Your task to perform on an android device: Do I have any events today? Image 0: 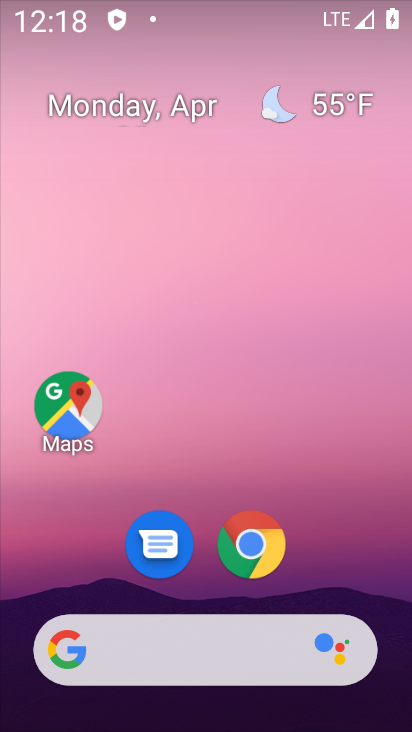
Step 0: drag from (307, 484) to (95, 150)
Your task to perform on an android device: Do I have any events today? Image 1: 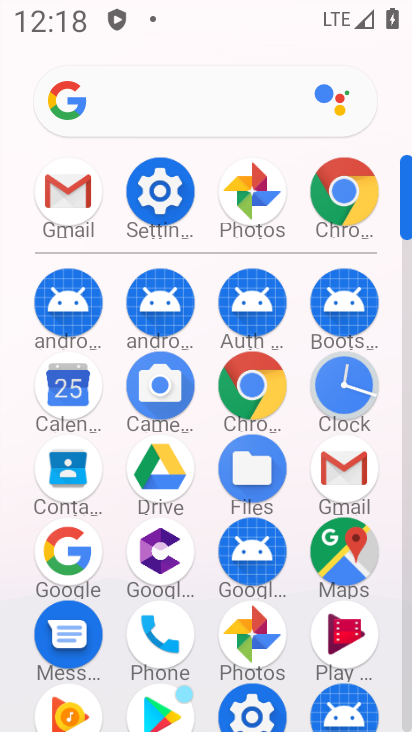
Step 1: click (61, 386)
Your task to perform on an android device: Do I have any events today? Image 2: 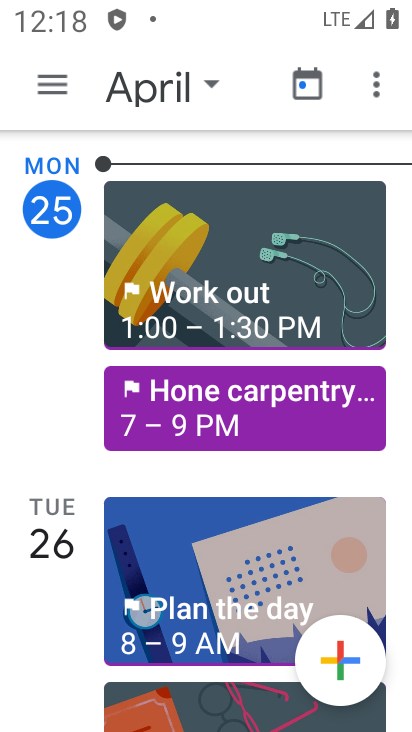
Step 2: task complete